Your task to perform on an android device: open the mobile data screen to see how much data has been used Image 0: 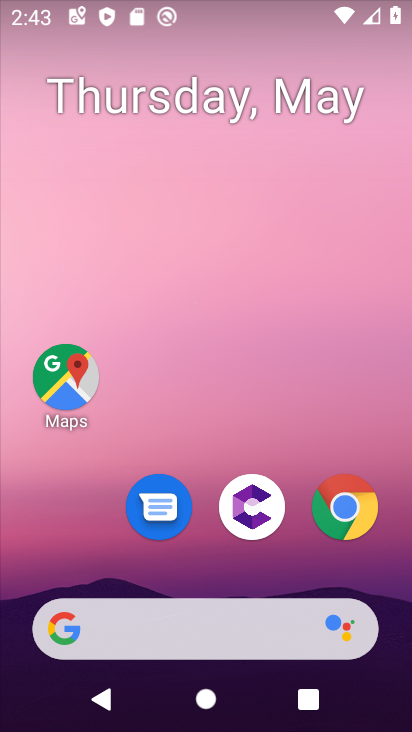
Step 0: press home button
Your task to perform on an android device: open the mobile data screen to see how much data has been used Image 1: 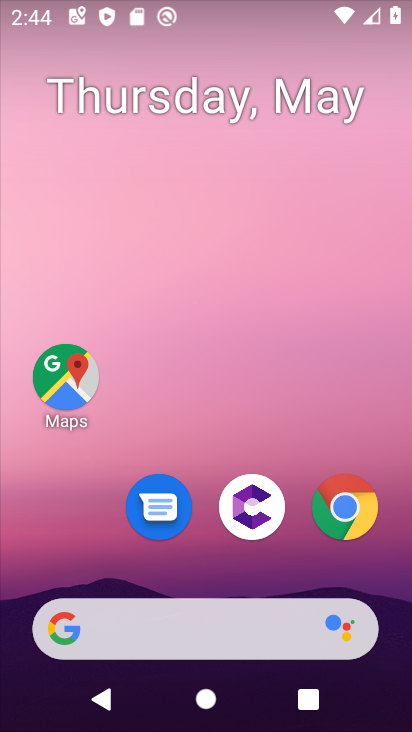
Step 1: drag from (288, 571) to (150, 81)
Your task to perform on an android device: open the mobile data screen to see how much data has been used Image 2: 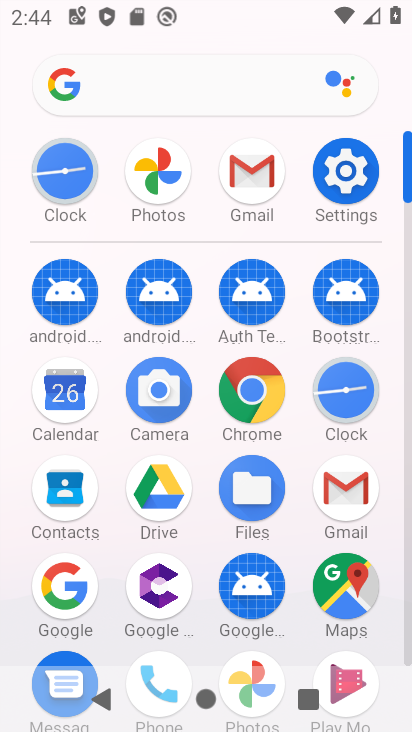
Step 2: click (353, 193)
Your task to perform on an android device: open the mobile data screen to see how much data has been used Image 3: 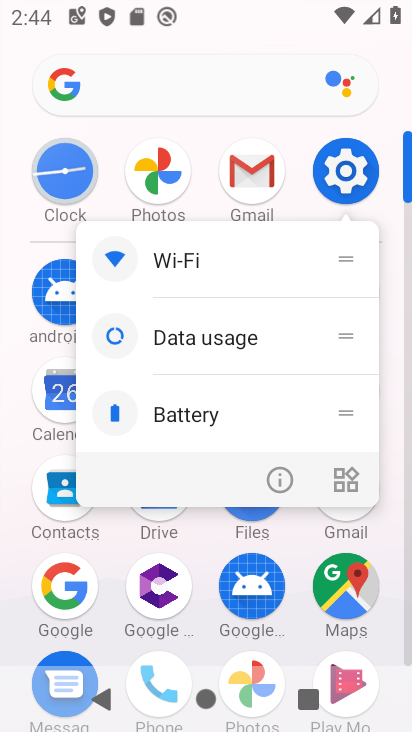
Step 3: click (357, 180)
Your task to perform on an android device: open the mobile data screen to see how much data has been used Image 4: 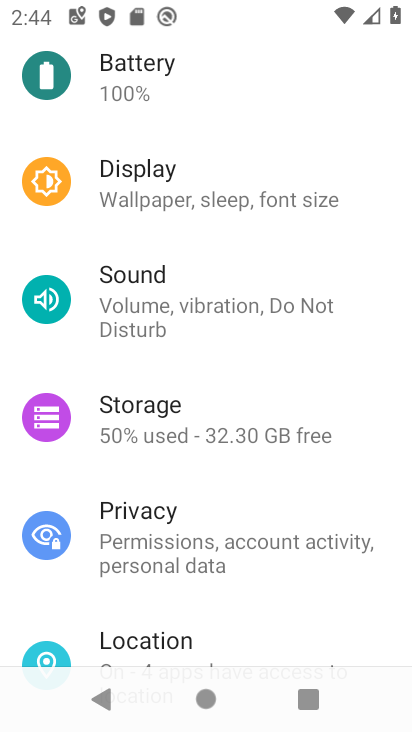
Step 4: drag from (195, 132) to (200, 729)
Your task to perform on an android device: open the mobile data screen to see how much data has been used Image 5: 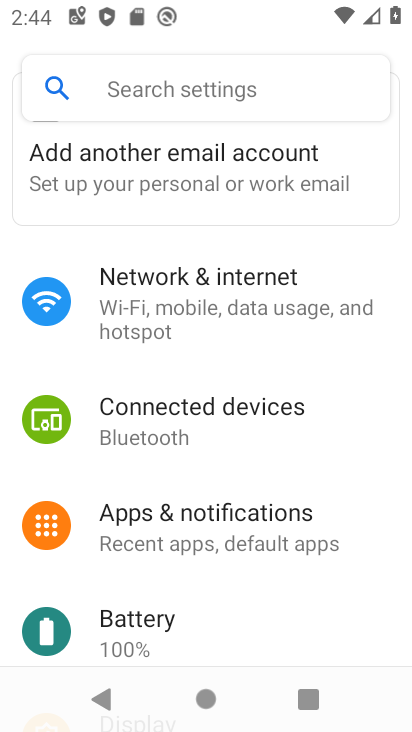
Step 5: click (148, 311)
Your task to perform on an android device: open the mobile data screen to see how much data has been used Image 6: 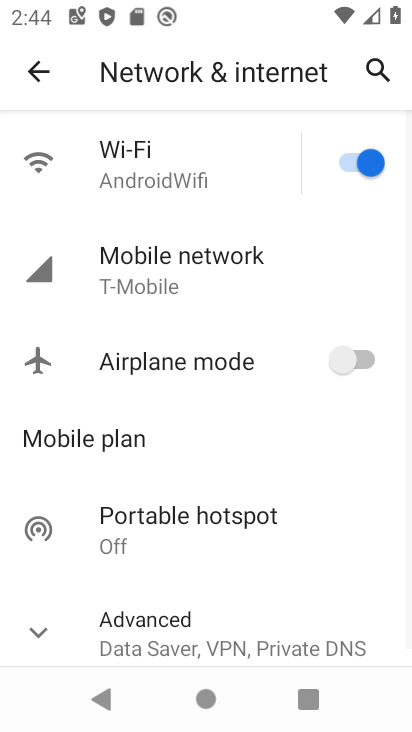
Step 6: click (170, 271)
Your task to perform on an android device: open the mobile data screen to see how much data has been used Image 7: 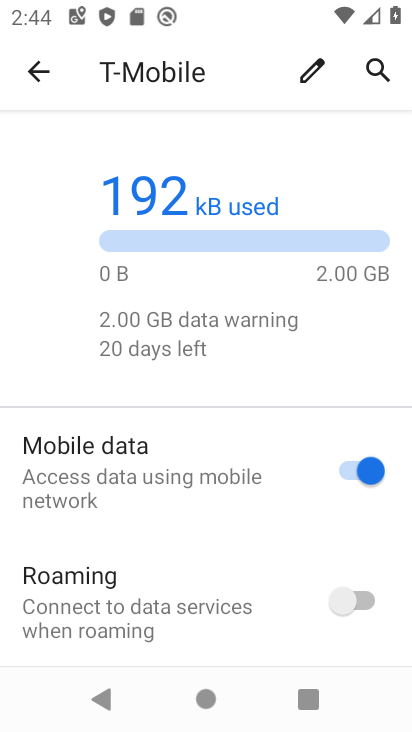
Step 7: drag from (193, 524) to (127, 260)
Your task to perform on an android device: open the mobile data screen to see how much data has been used Image 8: 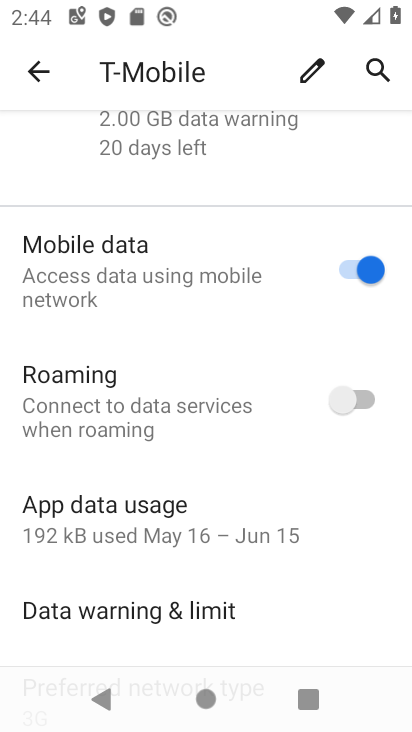
Step 8: click (85, 519)
Your task to perform on an android device: open the mobile data screen to see how much data has been used Image 9: 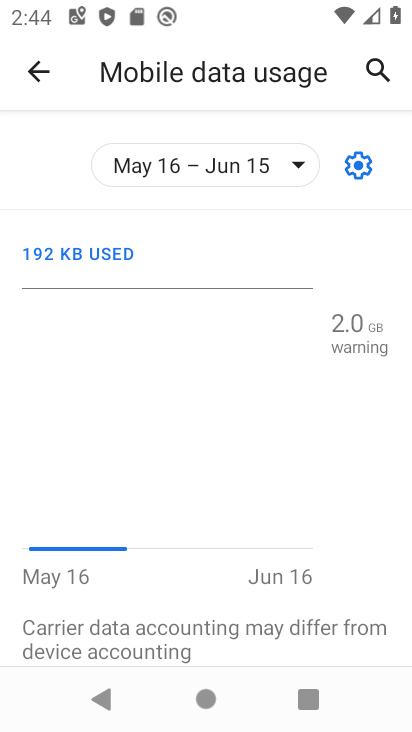
Step 9: task complete